Your task to perform on an android device: Open Youtube and go to the subscriptions tab Image 0: 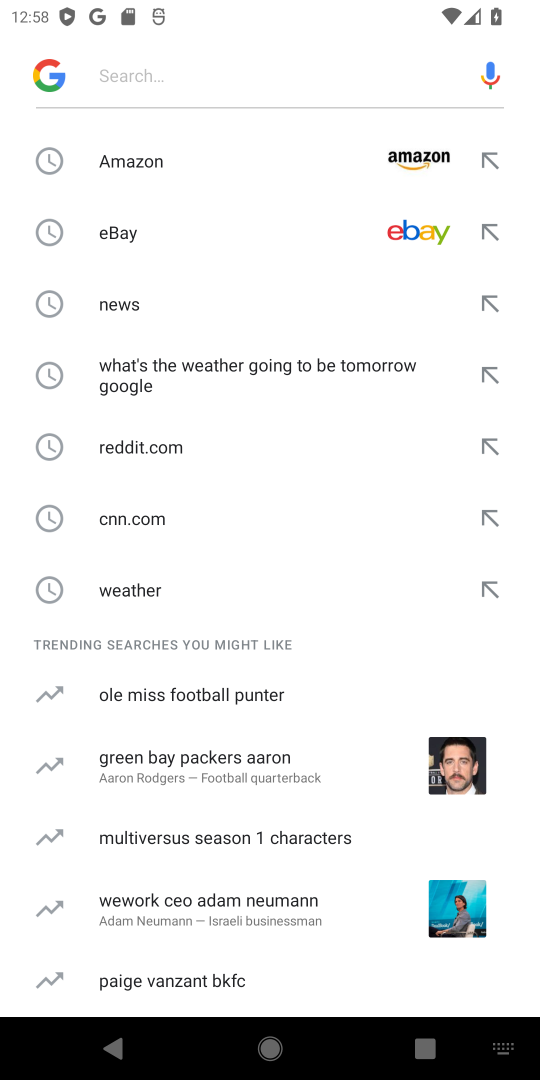
Step 0: press home button
Your task to perform on an android device: Open Youtube and go to the subscriptions tab Image 1: 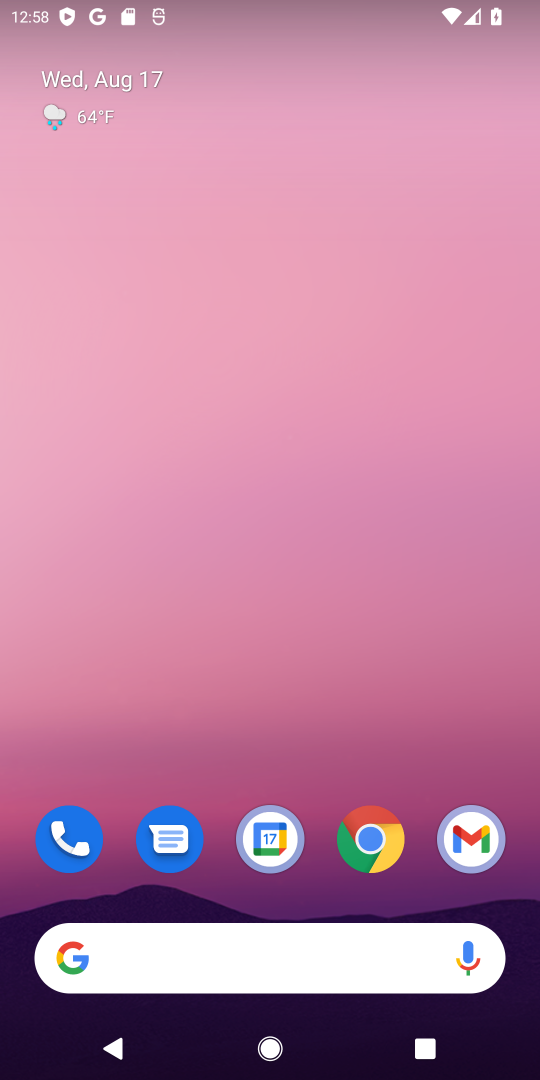
Step 1: drag from (191, 963) to (284, 145)
Your task to perform on an android device: Open Youtube and go to the subscriptions tab Image 2: 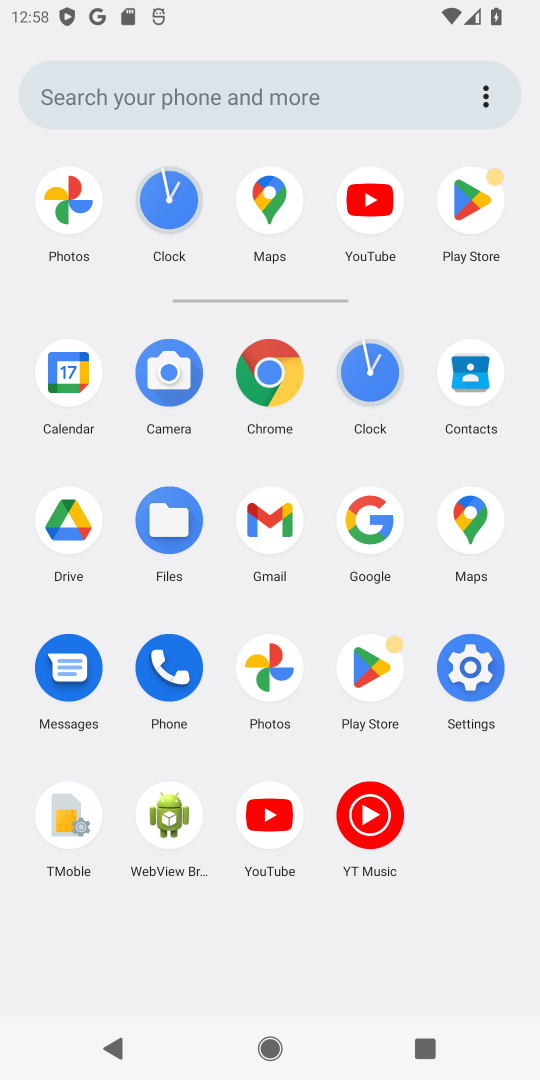
Step 2: click (273, 819)
Your task to perform on an android device: Open Youtube and go to the subscriptions tab Image 3: 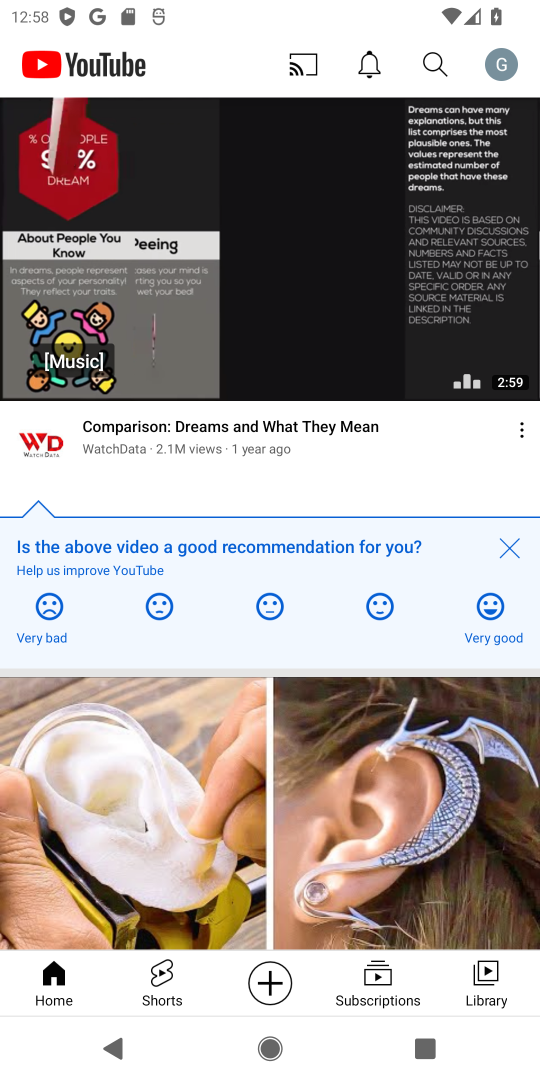
Step 3: click (377, 975)
Your task to perform on an android device: Open Youtube and go to the subscriptions tab Image 4: 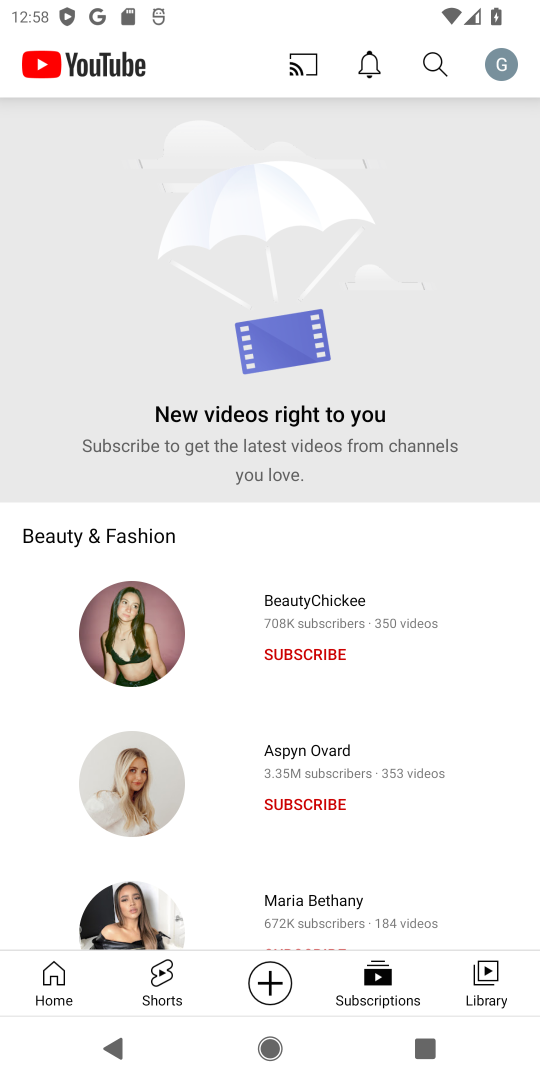
Step 4: task complete